Your task to perform on an android device: Open Google Maps Image 0: 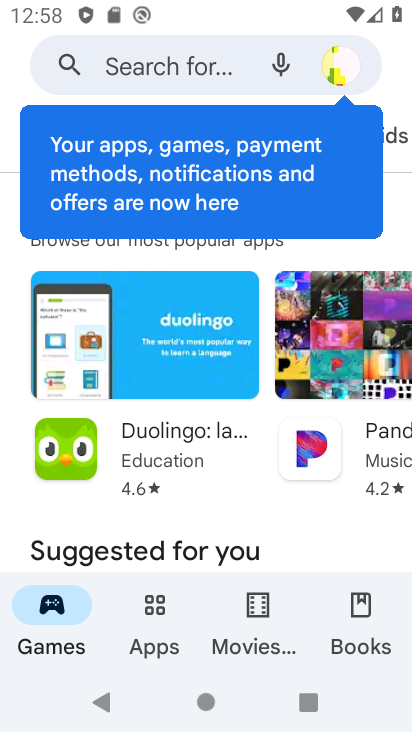
Step 0: task complete